Your task to perform on an android device: Go to privacy settings Image 0: 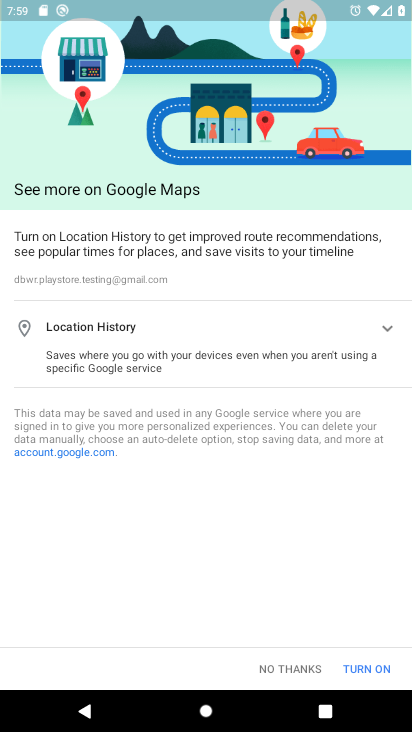
Step 0: press home button
Your task to perform on an android device: Go to privacy settings Image 1: 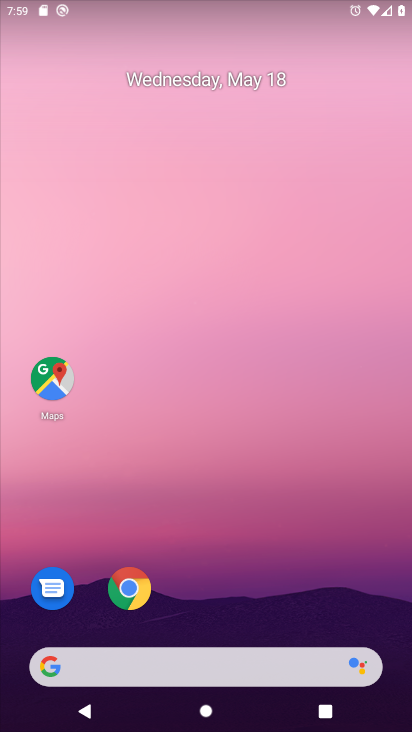
Step 1: drag from (181, 615) to (243, 334)
Your task to perform on an android device: Go to privacy settings Image 2: 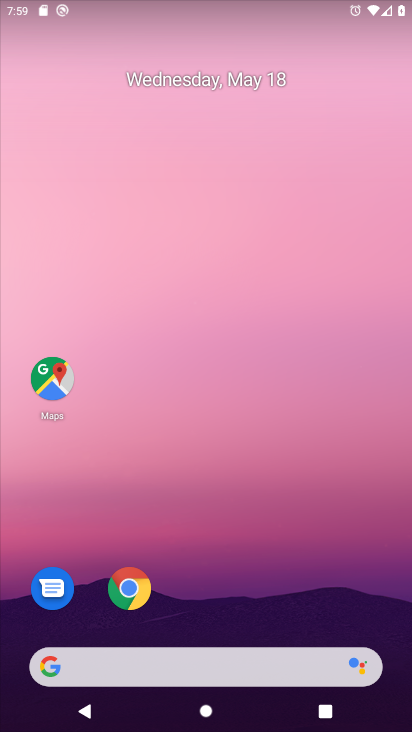
Step 2: drag from (250, 601) to (300, 163)
Your task to perform on an android device: Go to privacy settings Image 3: 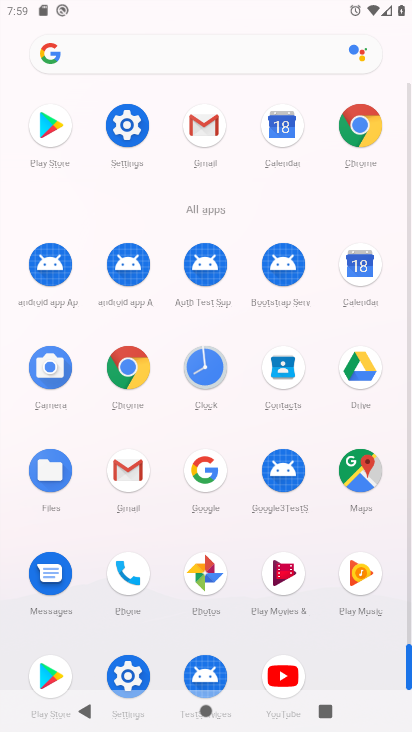
Step 3: click (127, 147)
Your task to perform on an android device: Go to privacy settings Image 4: 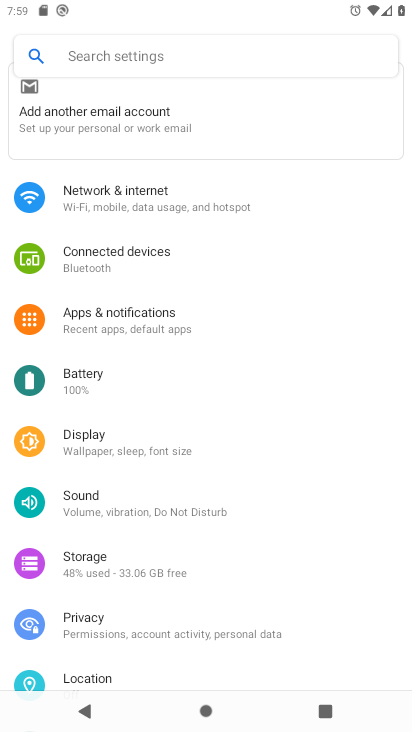
Step 4: click (110, 629)
Your task to perform on an android device: Go to privacy settings Image 5: 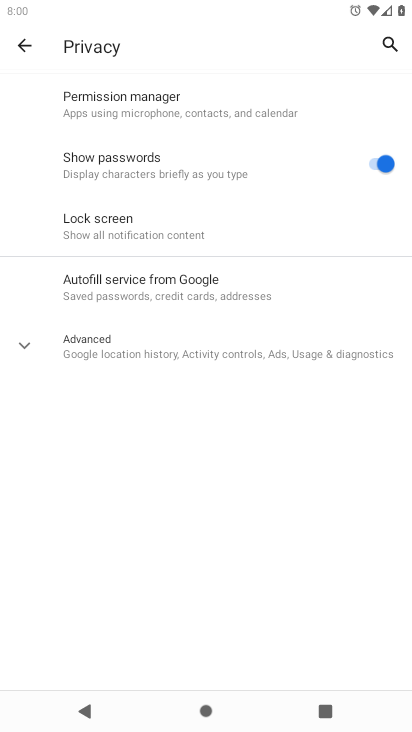
Step 5: task complete